Your task to perform on an android device: turn on airplane mode Image 0: 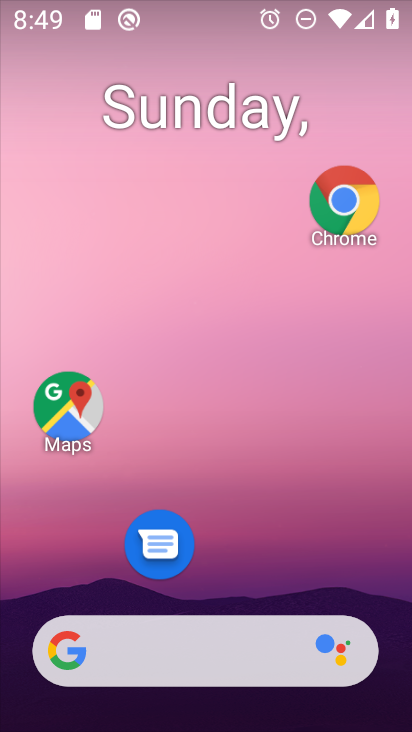
Step 0: drag from (277, 569) to (309, 1)
Your task to perform on an android device: turn on airplane mode Image 1: 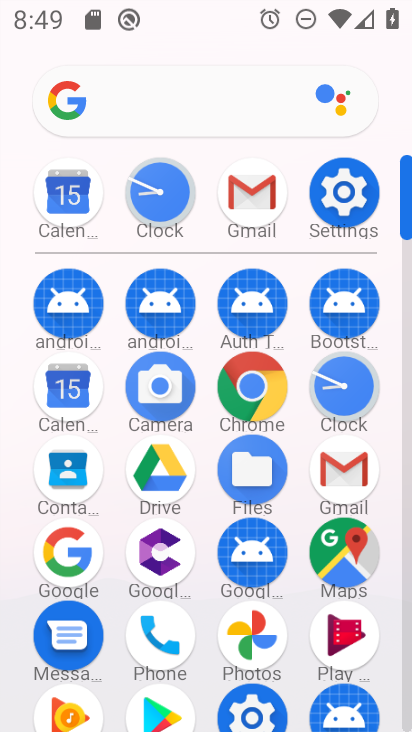
Step 1: click (337, 194)
Your task to perform on an android device: turn on airplane mode Image 2: 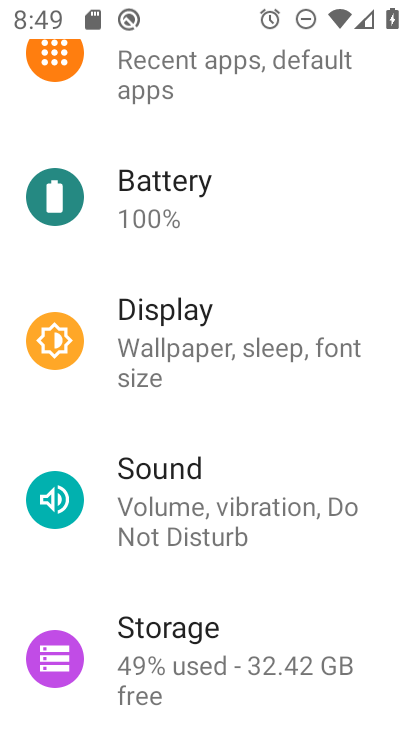
Step 2: drag from (316, 202) to (321, 574)
Your task to perform on an android device: turn on airplane mode Image 3: 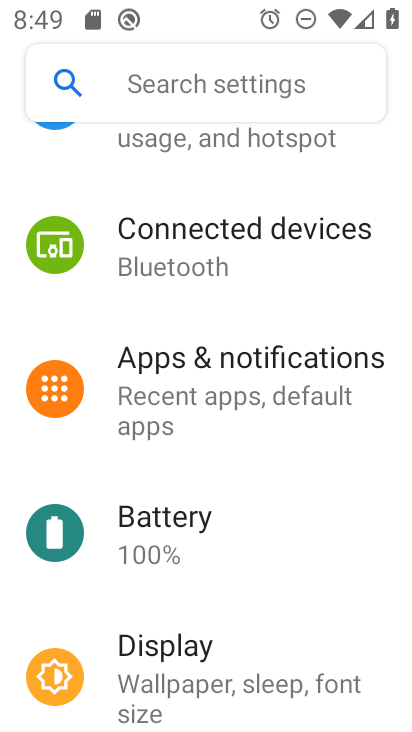
Step 3: click (195, 143)
Your task to perform on an android device: turn on airplane mode Image 4: 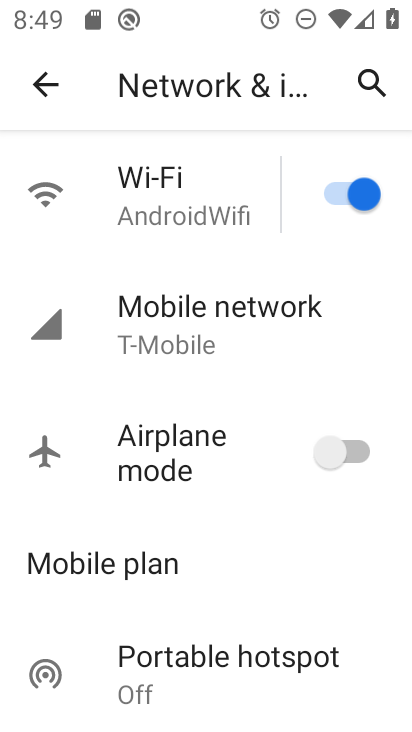
Step 4: click (333, 450)
Your task to perform on an android device: turn on airplane mode Image 5: 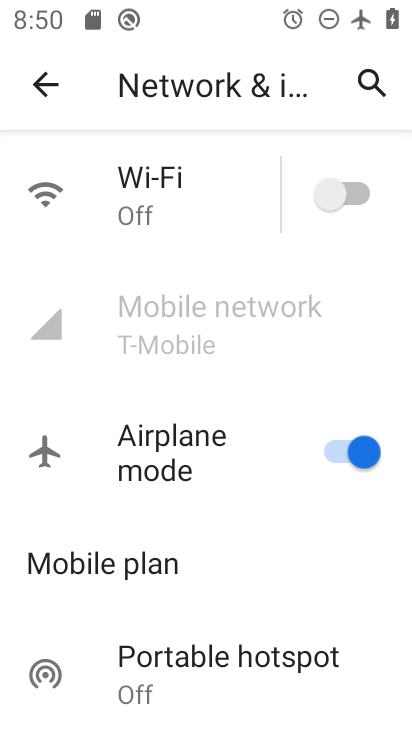
Step 5: task complete